Your task to perform on an android device: turn notification dots on Image 0: 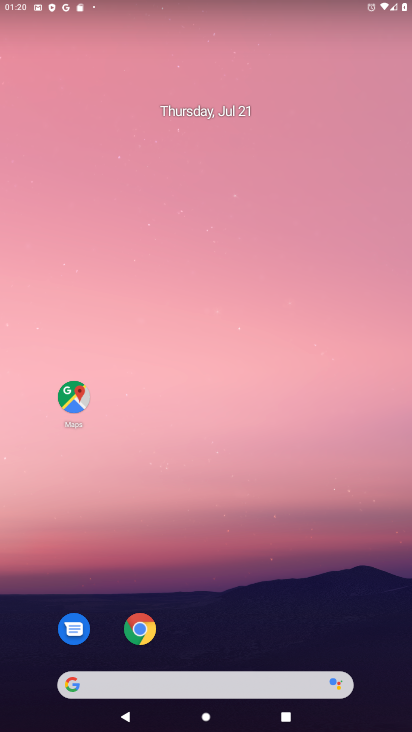
Step 0: drag from (226, 644) to (292, 72)
Your task to perform on an android device: turn notification dots on Image 1: 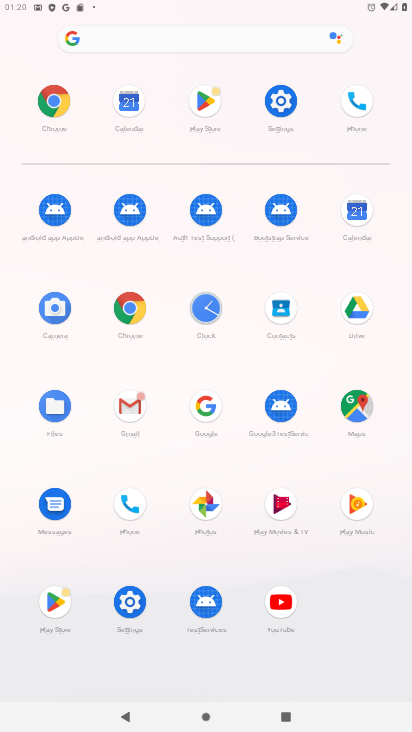
Step 1: click (132, 601)
Your task to perform on an android device: turn notification dots on Image 2: 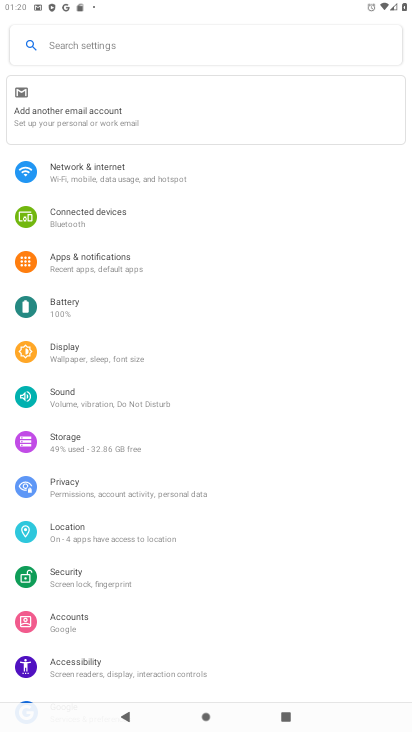
Step 2: click (126, 265)
Your task to perform on an android device: turn notification dots on Image 3: 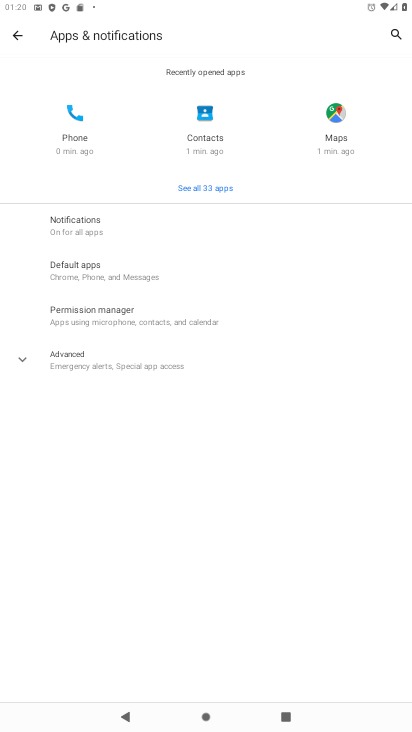
Step 3: click (60, 343)
Your task to perform on an android device: turn notification dots on Image 4: 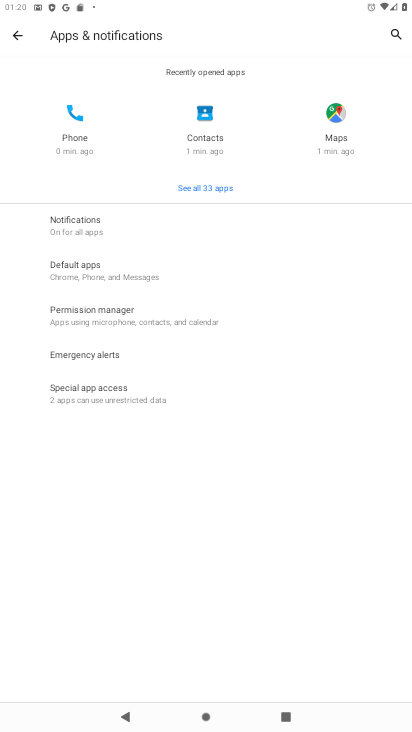
Step 4: click (106, 217)
Your task to perform on an android device: turn notification dots on Image 5: 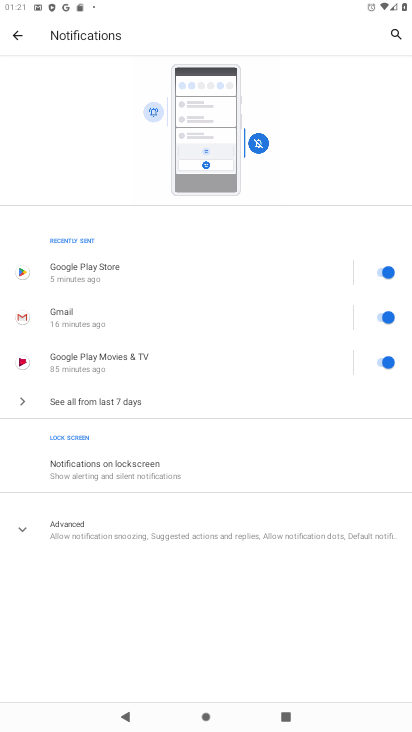
Step 5: click (82, 525)
Your task to perform on an android device: turn notification dots on Image 6: 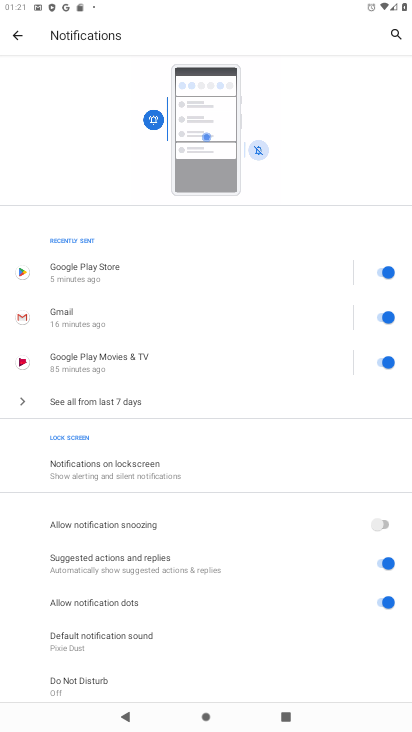
Step 6: task complete